Your task to perform on an android device: install app "Fetch Rewards" Image 0: 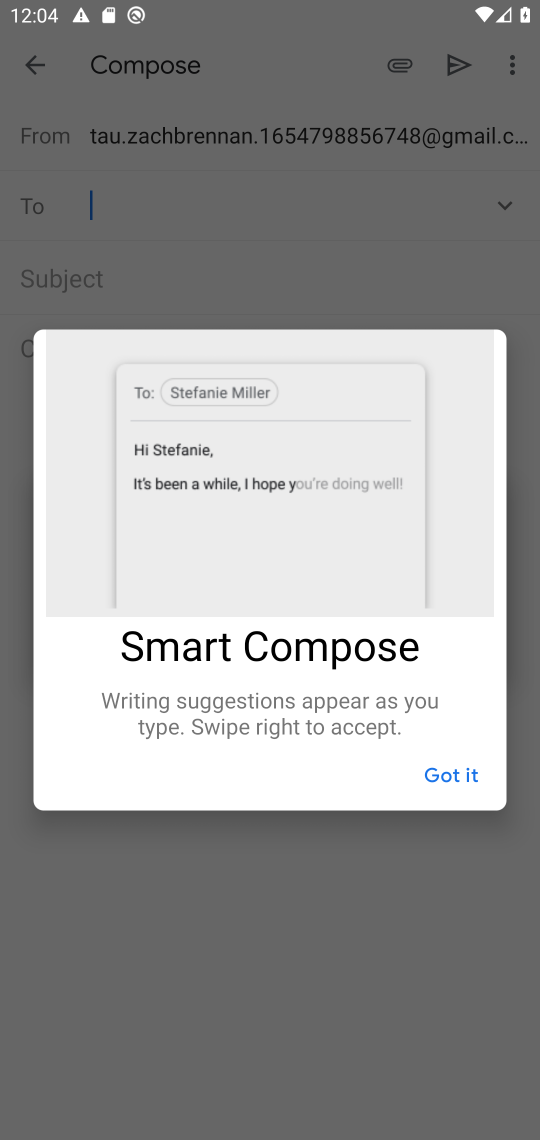
Step 0: press home button
Your task to perform on an android device: install app "Fetch Rewards" Image 1: 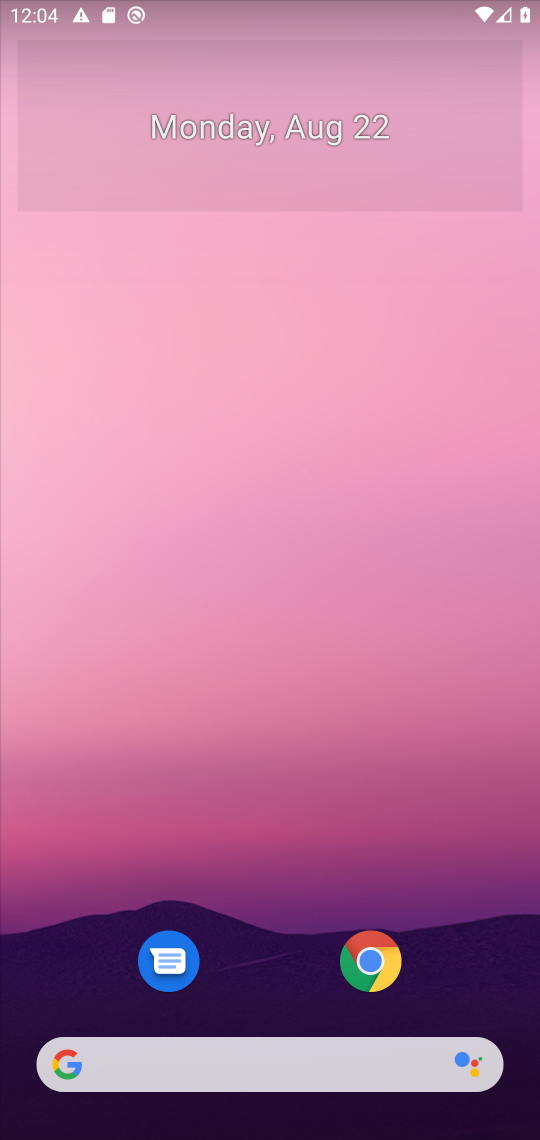
Step 1: drag from (476, 909) to (505, 77)
Your task to perform on an android device: install app "Fetch Rewards" Image 2: 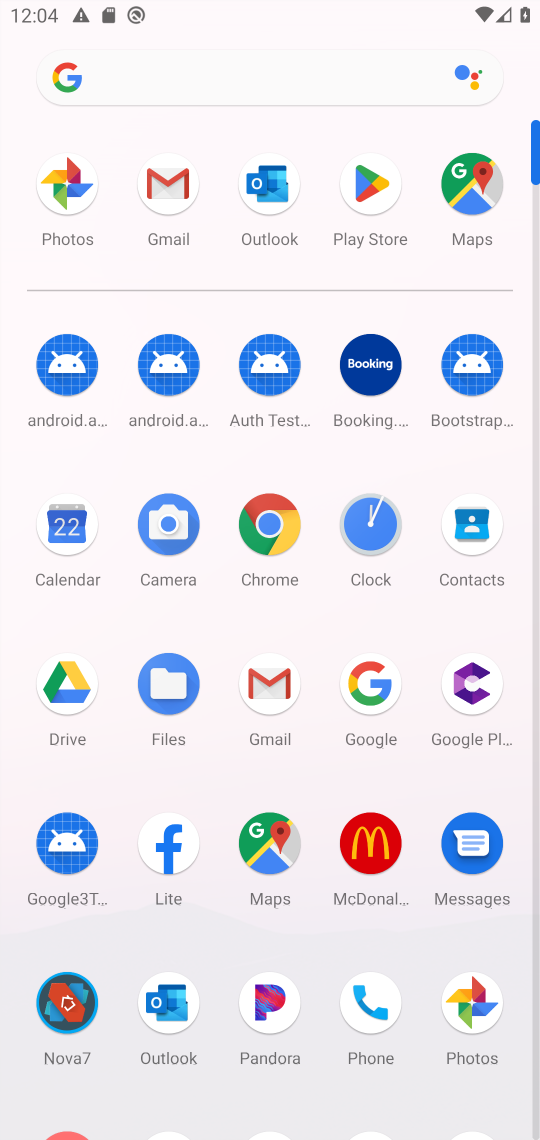
Step 2: click (368, 206)
Your task to perform on an android device: install app "Fetch Rewards" Image 3: 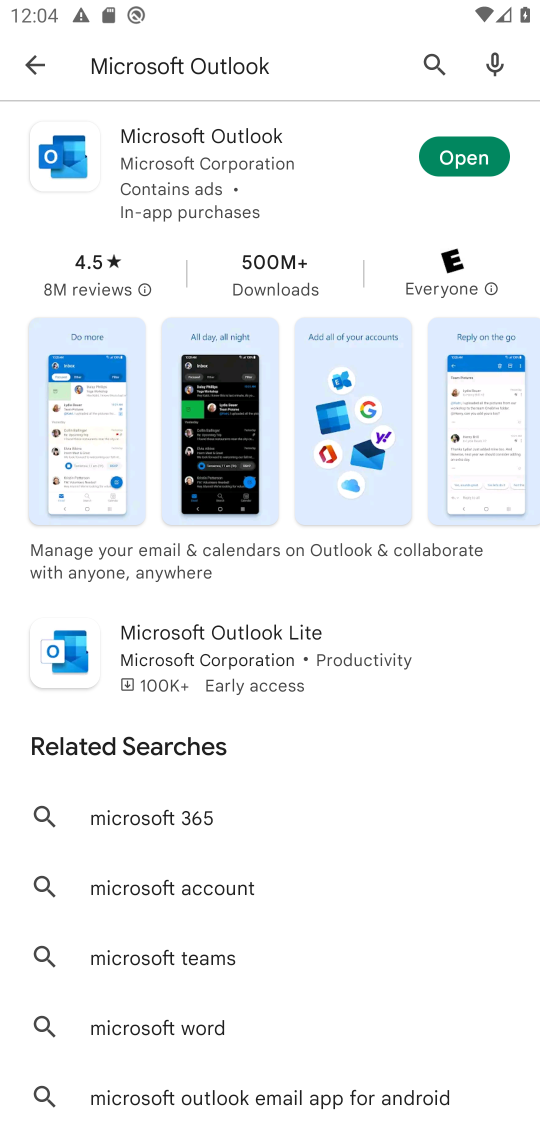
Step 3: press back button
Your task to perform on an android device: install app "Fetch Rewards" Image 4: 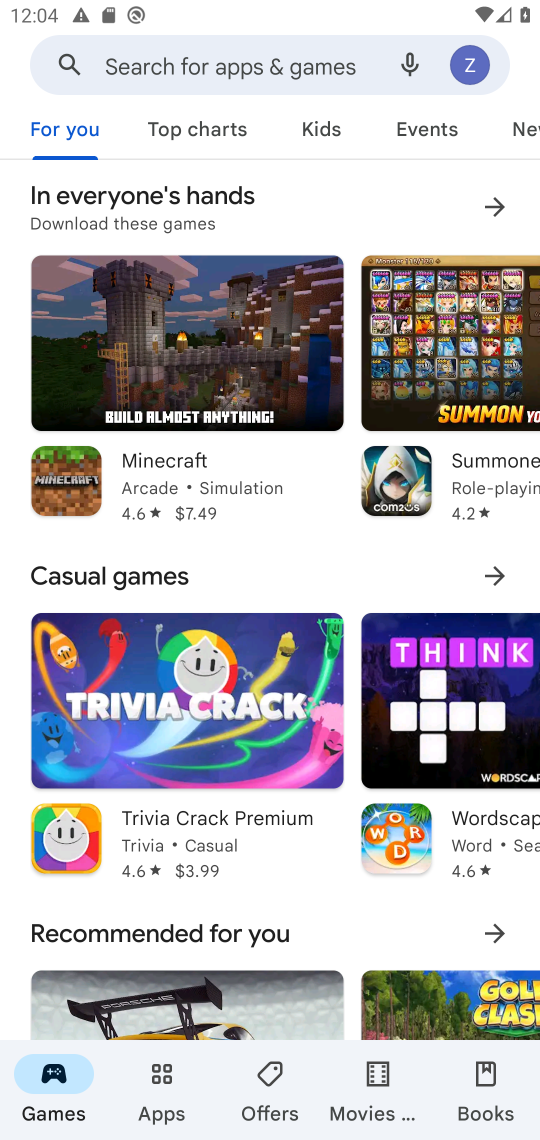
Step 4: click (334, 67)
Your task to perform on an android device: install app "Fetch Rewards" Image 5: 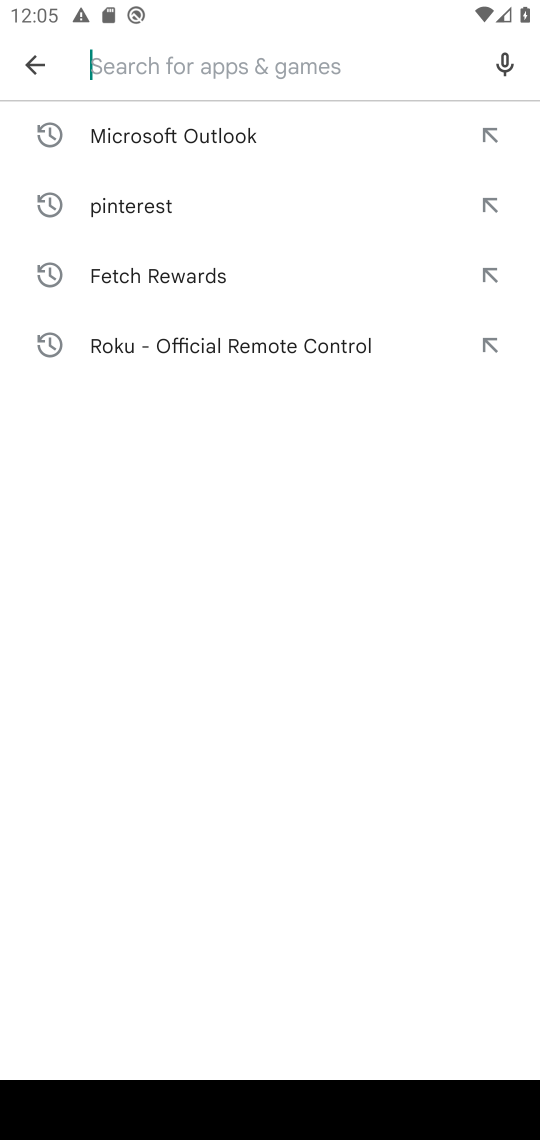
Step 5: press enter
Your task to perform on an android device: install app "Fetch Rewards" Image 6: 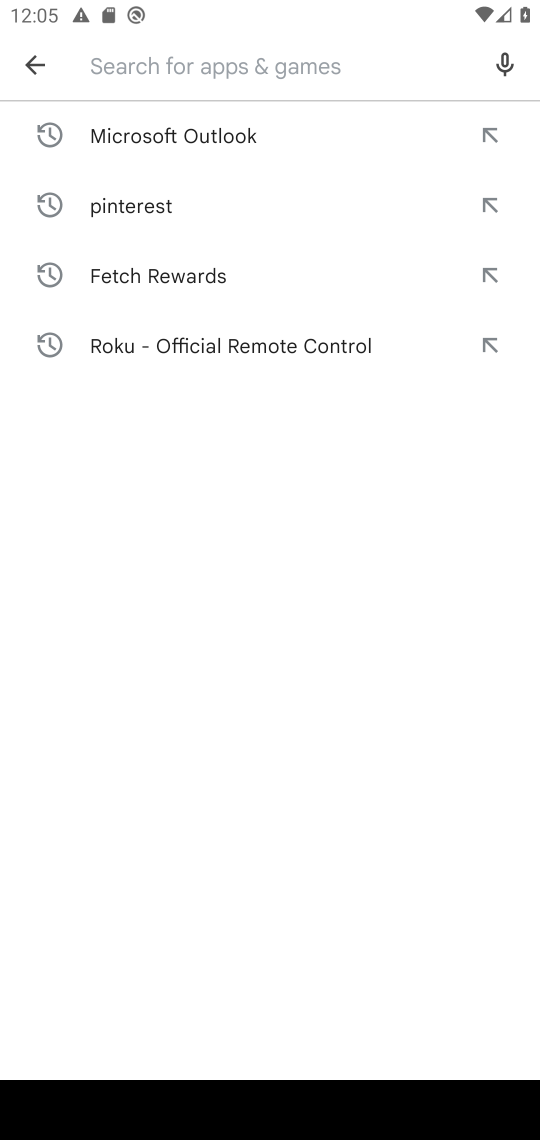
Step 6: type "Fetch Rewards"
Your task to perform on an android device: install app "Fetch Rewards" Image 7: 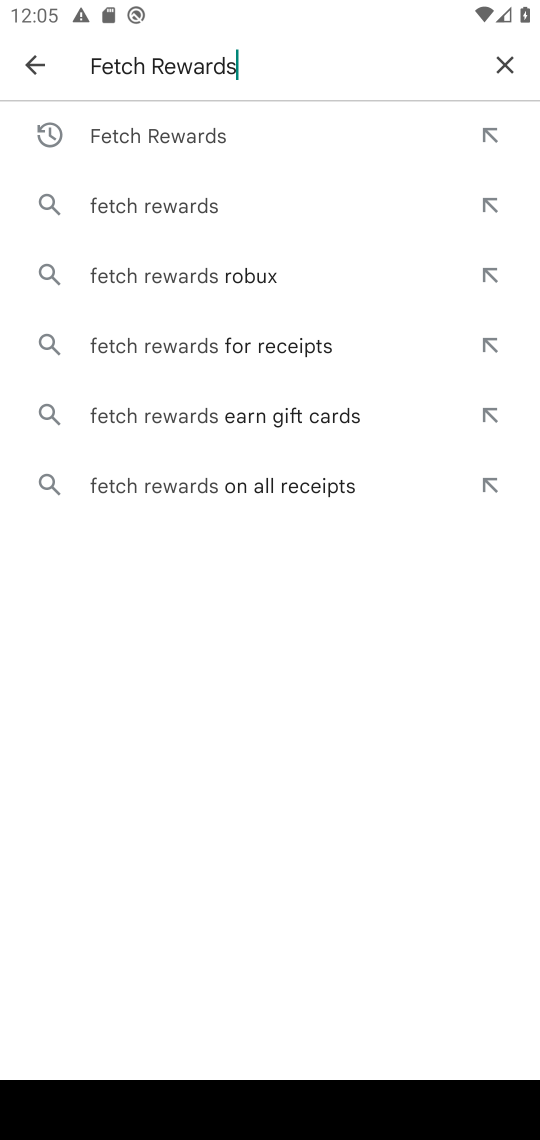
Step 7: click (232, 126)
Your task to perform on an android device: install app "Fetch Rewards" Image 8: 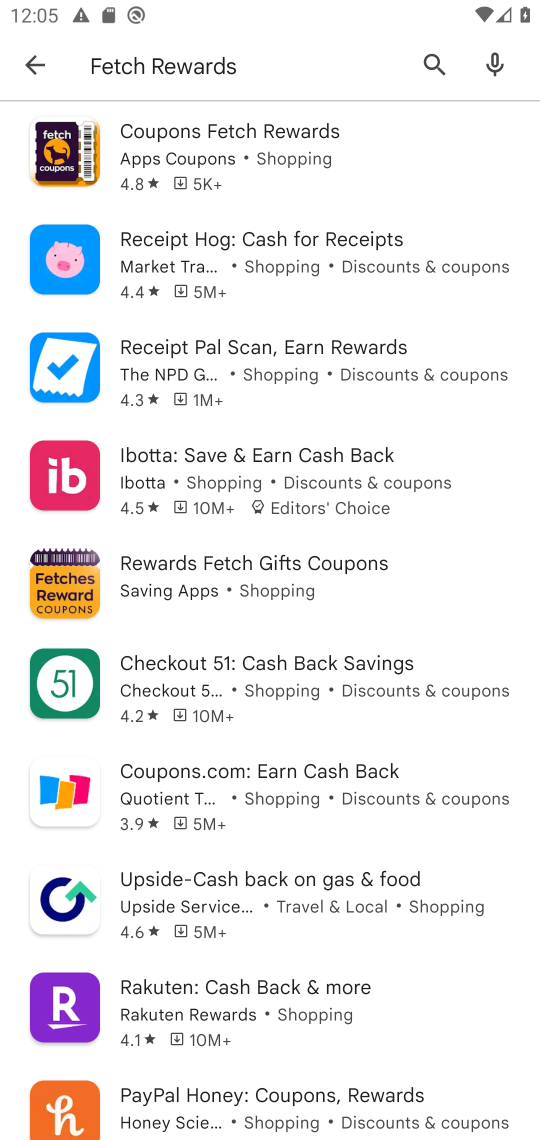
Step 8: task complete